Your task to perform on an android device: turn on sleep mode Image 0: 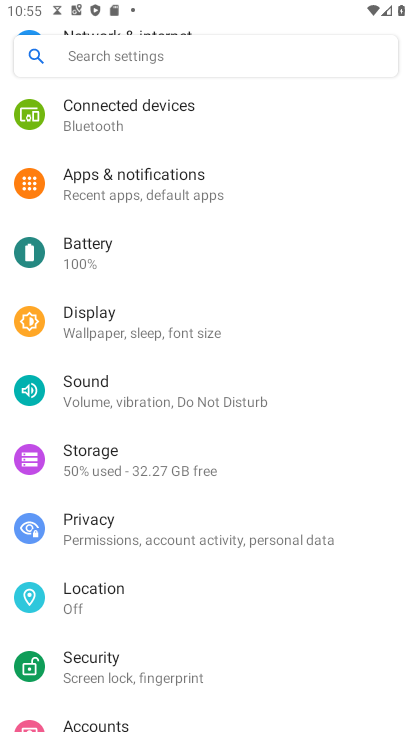
Step 0: click (112, 316)
Your task to perform on an android device: turn on sleep mode Image 1: 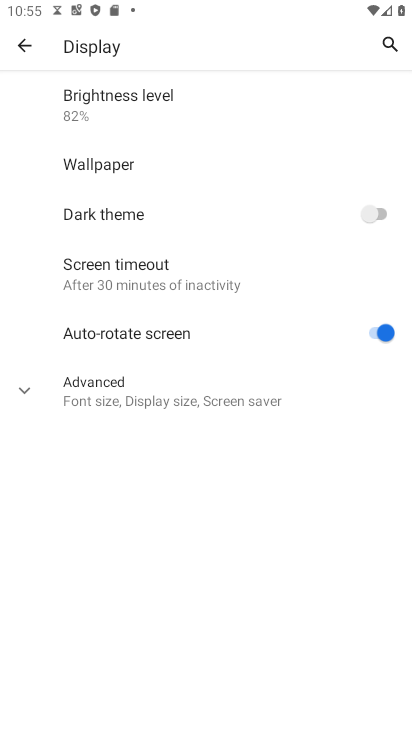
Step 1: click (103, 357)
Your task to perform on an android device: turn on sleep mode Image 2: 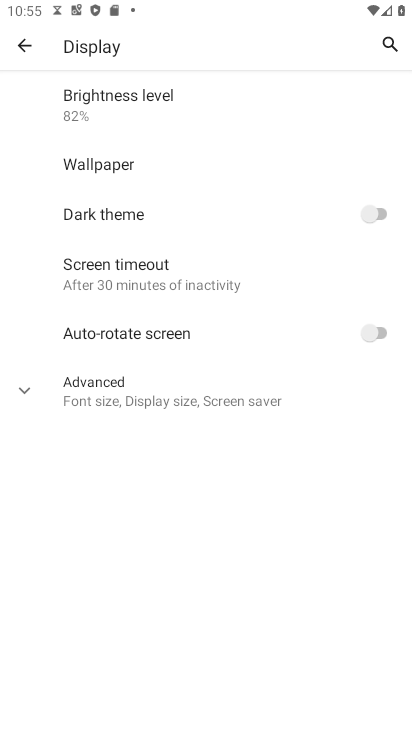
Step 2: click (104, 321)
Your task to perform on an android device: turn on sleep mode Image 3: 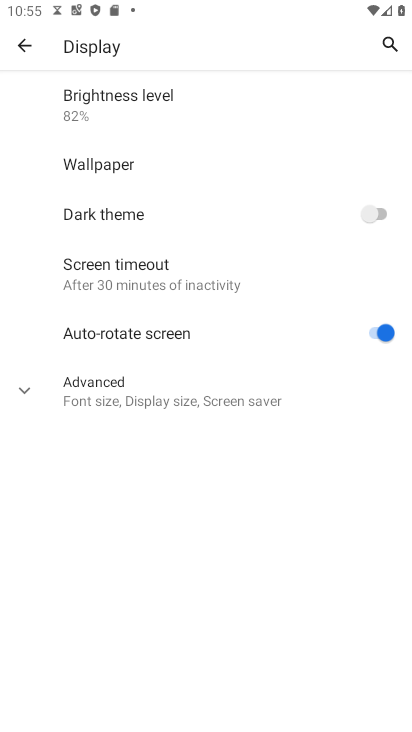
Step 3: click (126, 372)
Your task to perform on an android device: turn on sleep mode Image 4: 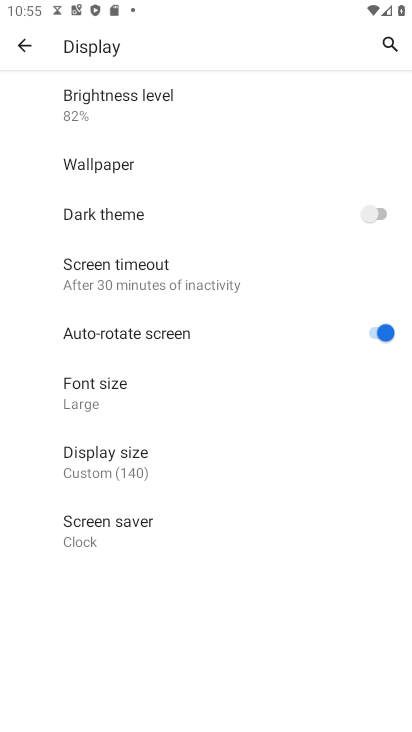
Step 4: task complete